Your task to perform on an android device: Open Amazon Image 0: 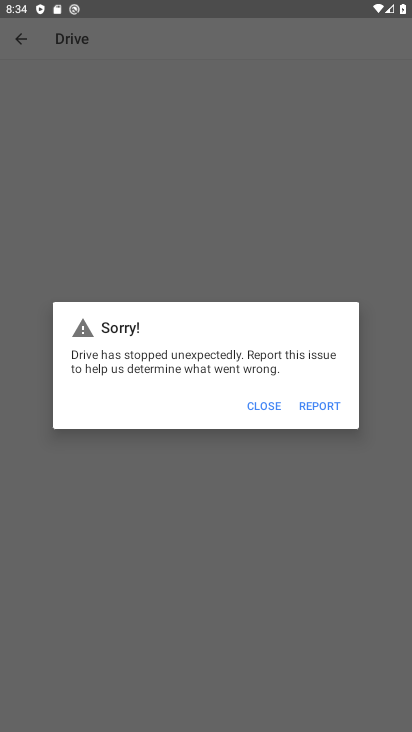
Step 0: press back button
Your task to perform on an android device: Open Amazon Image 1: 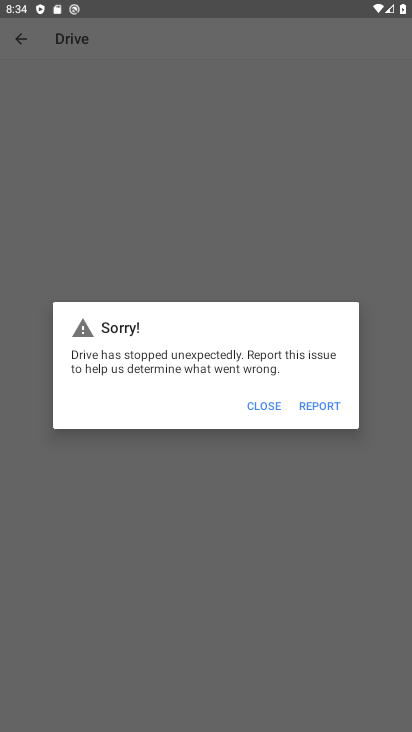
Step 1: press home button
Your task to perform on an android device: Open Amazon Image 2: 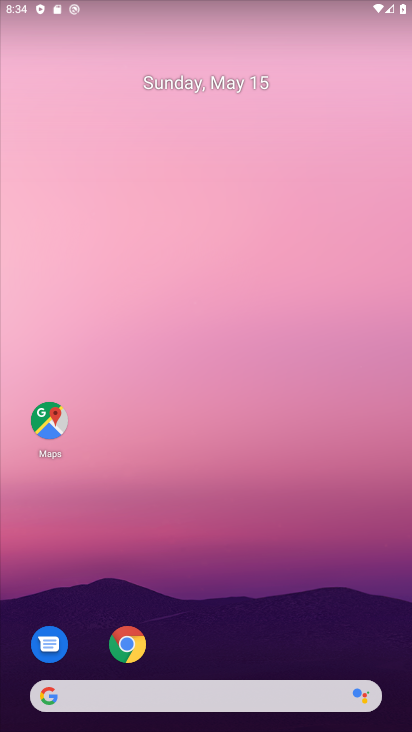
Step 2: click (131, 652)
Your task to perform on an android device: Open Amazon Image 3: 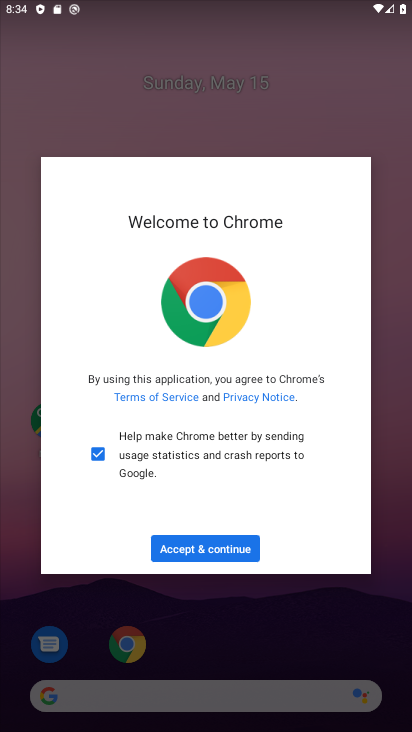
Step 3: click (217, 549)
Your task to perform on an android device: Open Amazon Image 4: 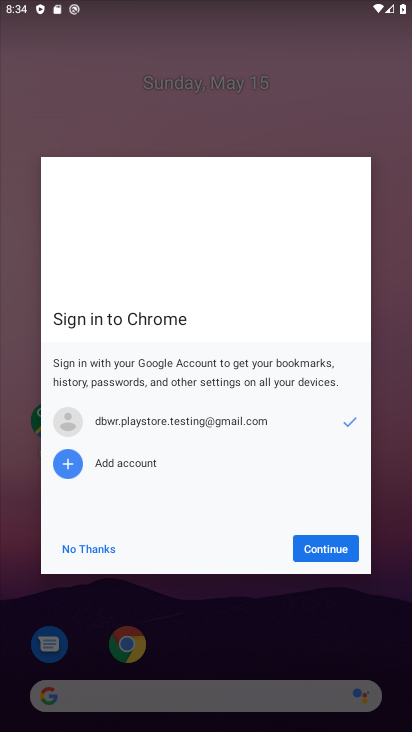
Step 4: click (308, 534)
Your task to perform on an android device: Open Amazon Image 5: 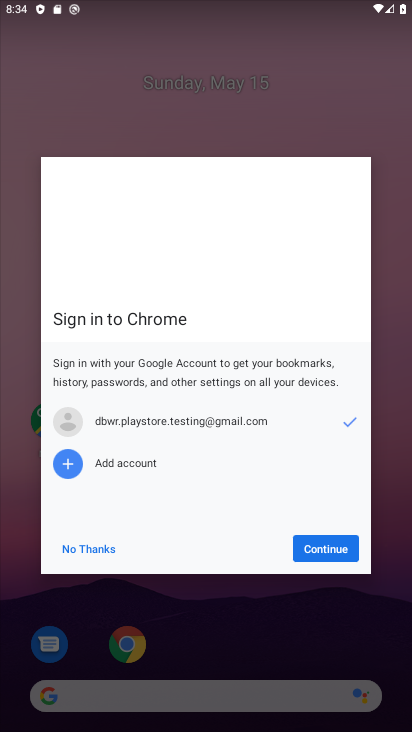
Step 5: click (355, 548)
Your task to perform on an android device: Open Amazon Image 6: 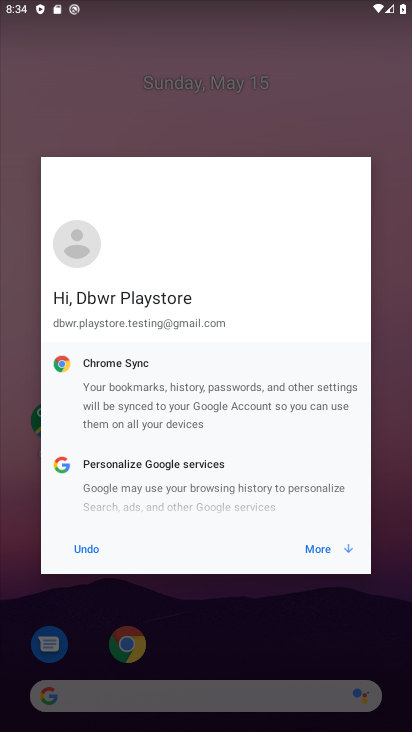
Step 6: click (348, 553)
Your task to perform on an android device: Open Amazon Image 7: 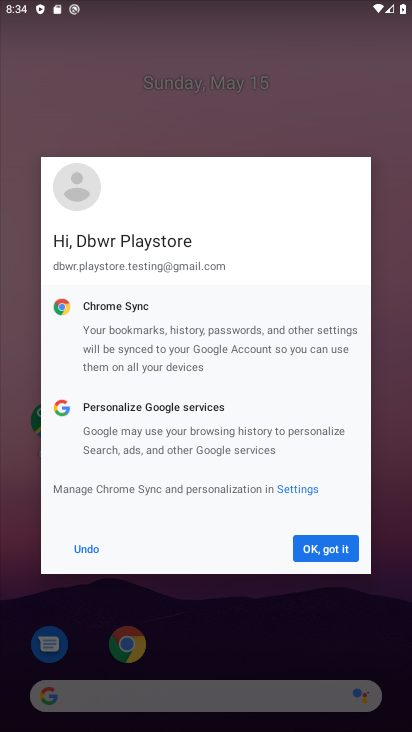
Step 7: click (334, 553)
Your task to perform on an android device: Open Amazon Image 8: 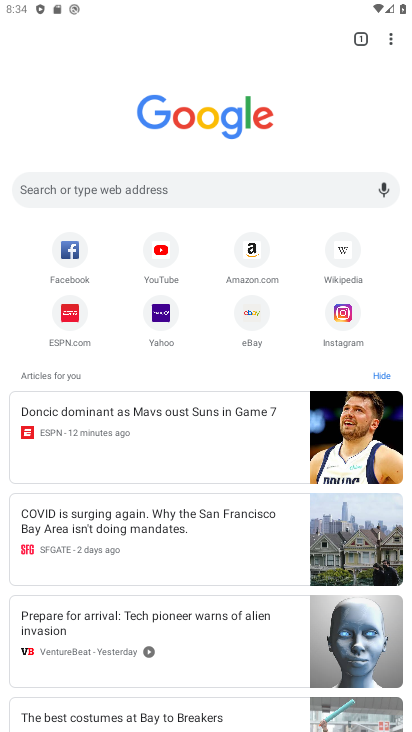
Step 8: click (254, 251)
Your task to perform on an android device: Open Amazon Image 9: 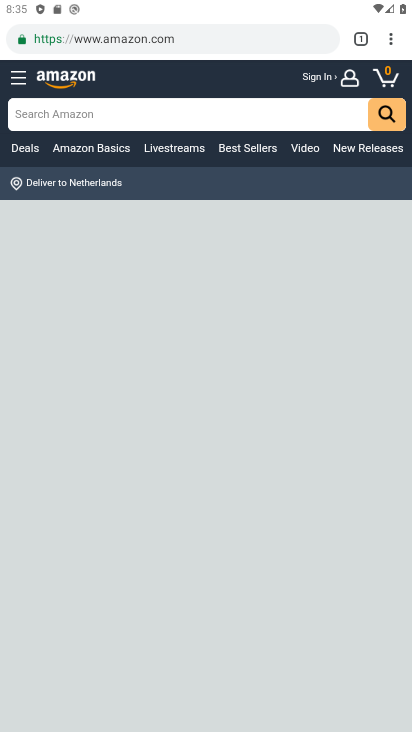
Step 9: task complete